Your task to perform on an android device: change keyboard looks Image 0: 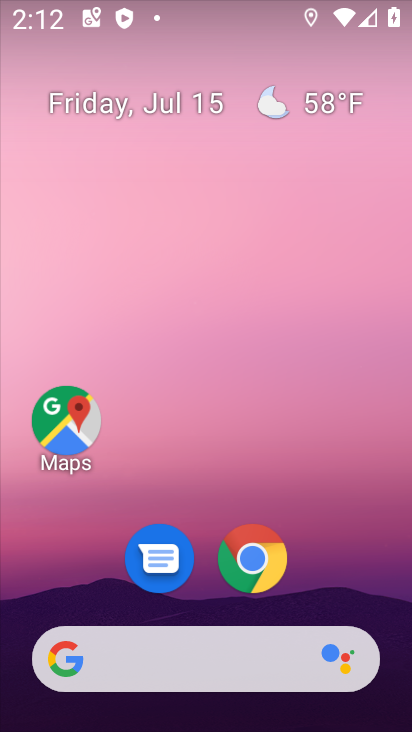
Step 0: drag from (367, 559) to (403, 258)
Your task to perform on an android device: change keyboard looks Image 1: 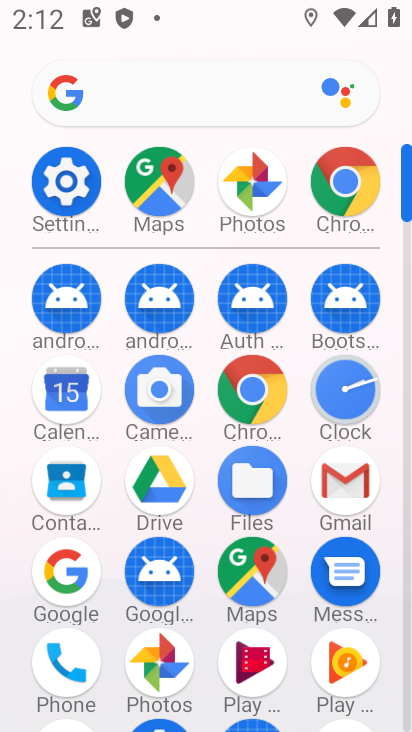
Step 1: click (76, 187)
Your task to perform on an android device: change keyboard looks Image 2: 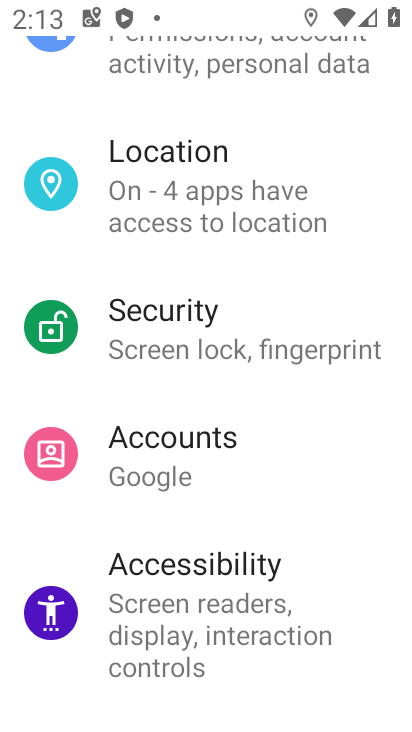
Step 2: drag from (369, 527) to (371, 427)
Your task to perform on an android device: change keyboard looks Image 3: 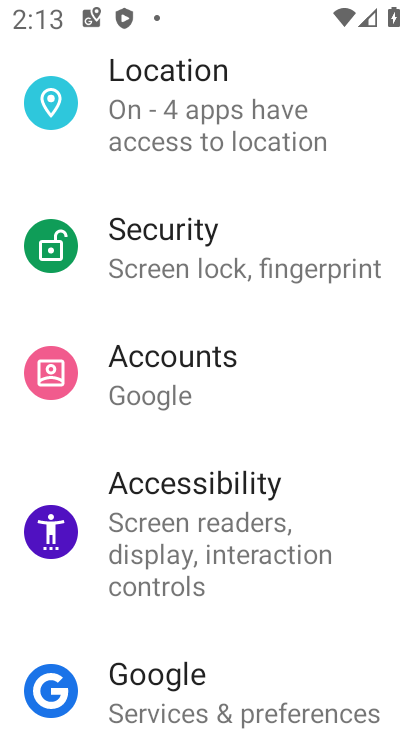
Step 3: drag from (357, 524) to (361, 457)
Your task to perform on an android device: change keyboard looks Image 4: 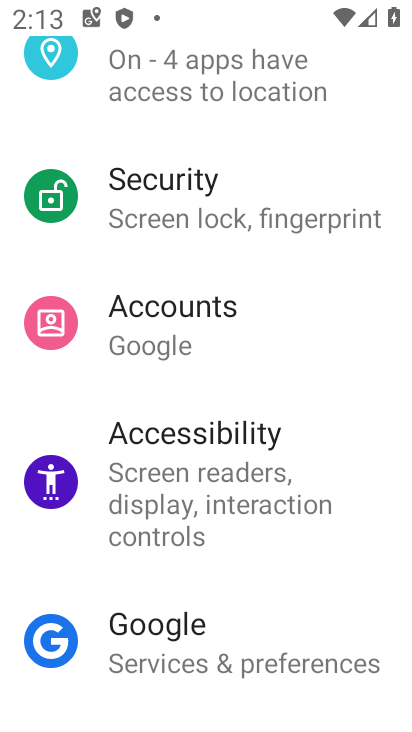
Step 4: drag from (353, 580) to (359, 505)
Your task to perform on an android device: change keyboard looks Image 5: 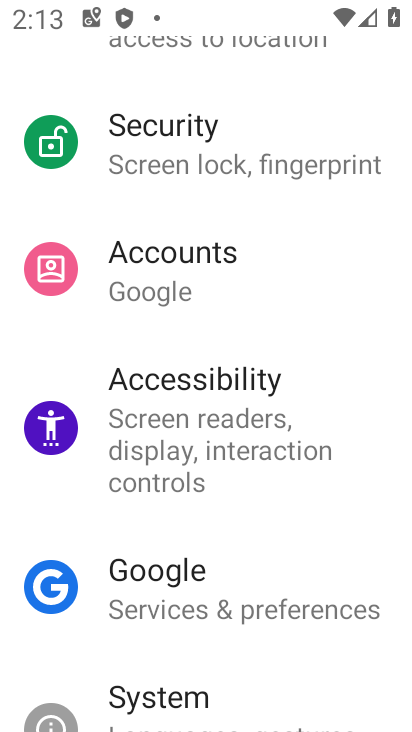
Step 5: drag from (372, 610) to (372, 502)
Your task to perform on an android device: change keyboard looks Image 6: 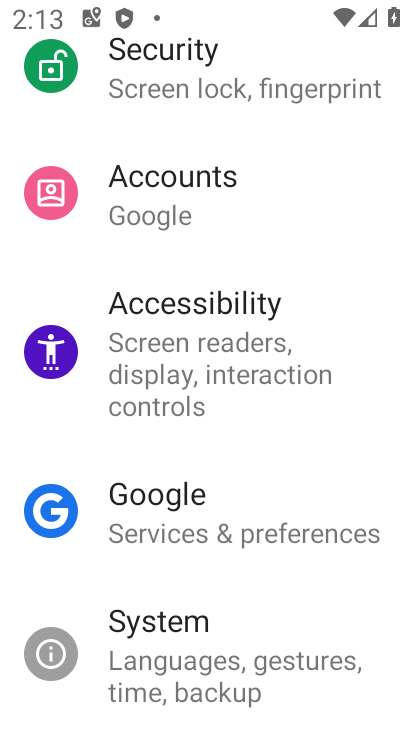
Step 6: drag from (384, 596) to (378, 499)
Your task to perform on an android device: change keyboard looks Image 7: 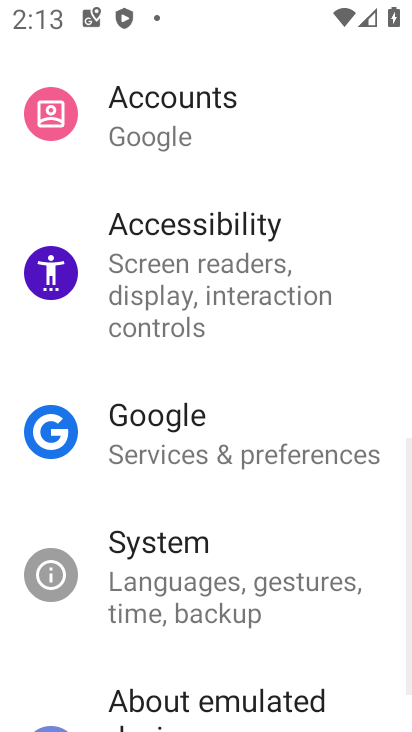
Step 7: click (353, 571)
Your task to perform on an android device: change keyboard looks Image 8: 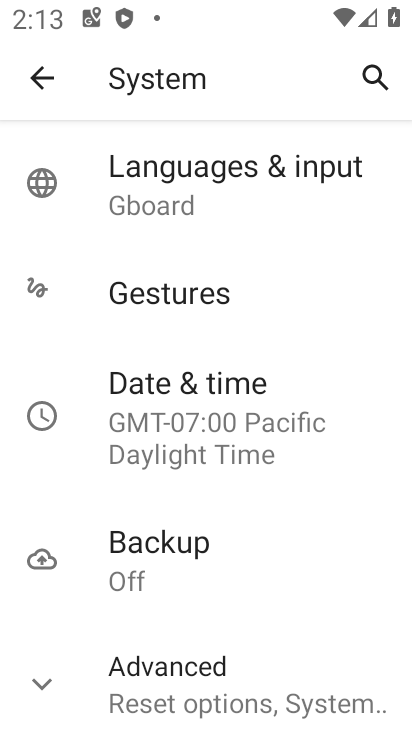
Step 8: click (278, 220)
Your task to perform on an android device: change keyboard looks Image 9: 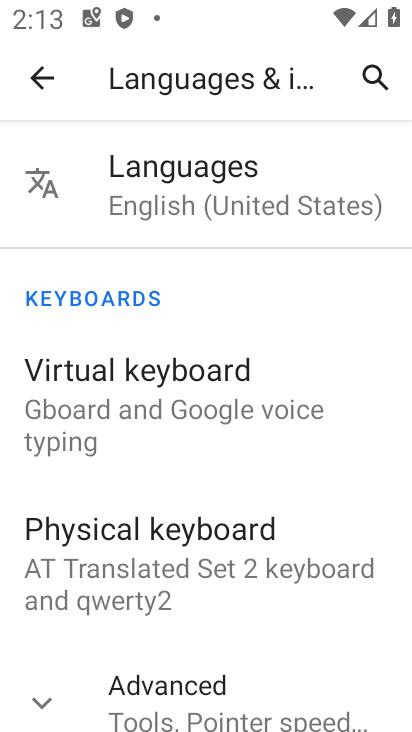
Step 9: click (175, 414)
Your task to perform on an android device: change keyboard looks Image 10: 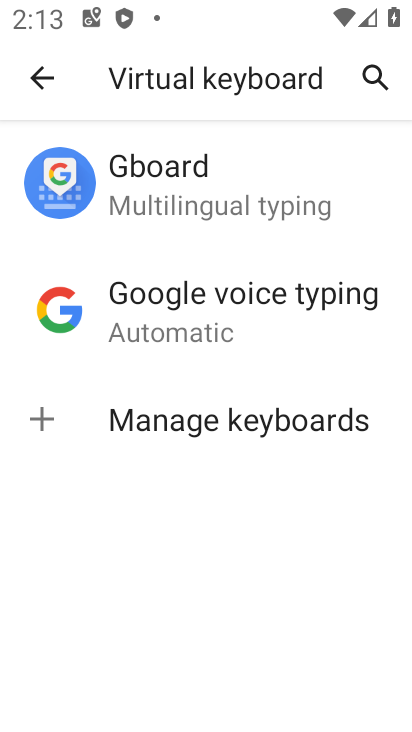
Step 10: click (279, 202)
Your task to perform on an android device: change keyboard looks Image 11: 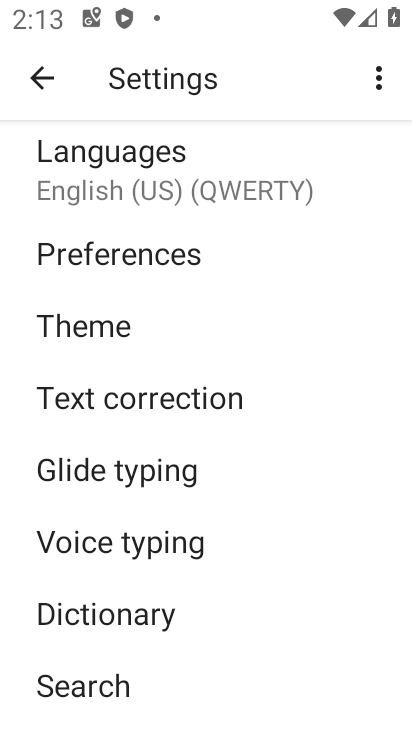
Step 11: click (202, 331)
Your task to perform on an android device: change keyboard looks Image 12: 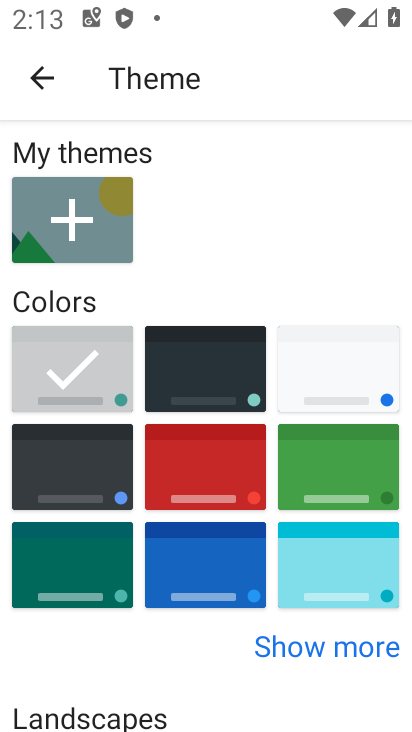
Step 12: click (206, 488)
Your task to perform on an android device: change keyboard looks Image 13: 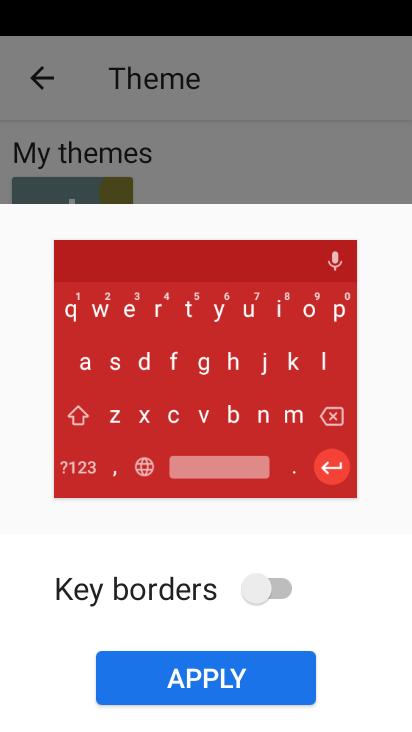
Step 13: click (269, 675)
Your task to perform on an android device: change keyboard looks Image 14: 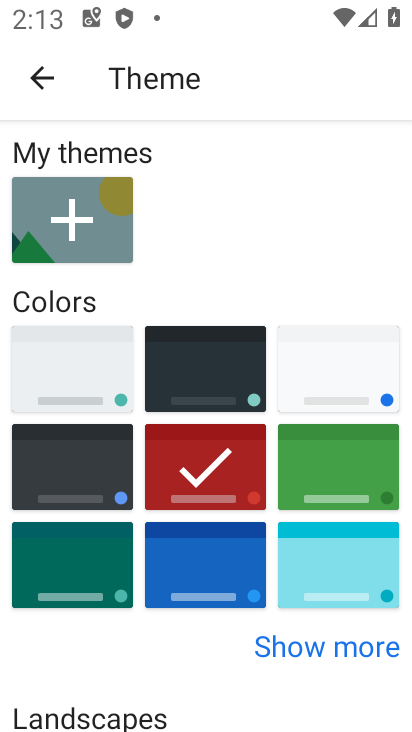
Step 14: task complete